Your task to perform on an android device: Go to calendar. Show me events next week Image 0: 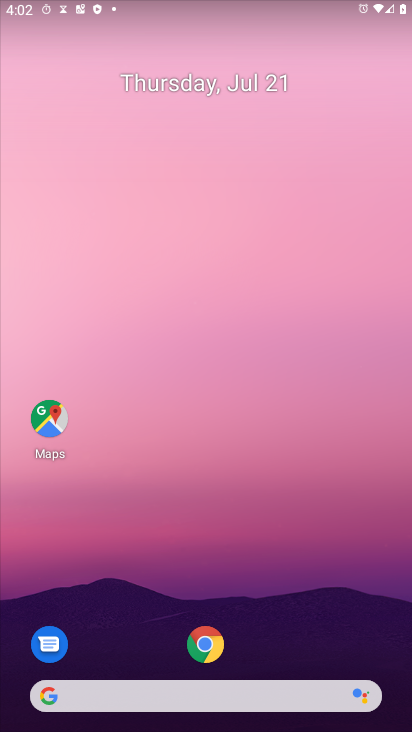
Step 0: drag from (293, 583) to (279, 0)
Your task to perform on an android device: Go to calendar. Show me events next week Image 1: 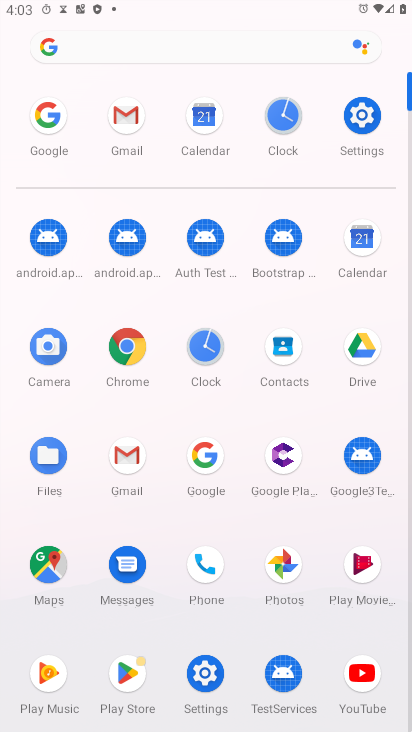
Step 1: click (368, 232)
Your task to perform on an android device: Go to calendar. Show me events next week Image 2: 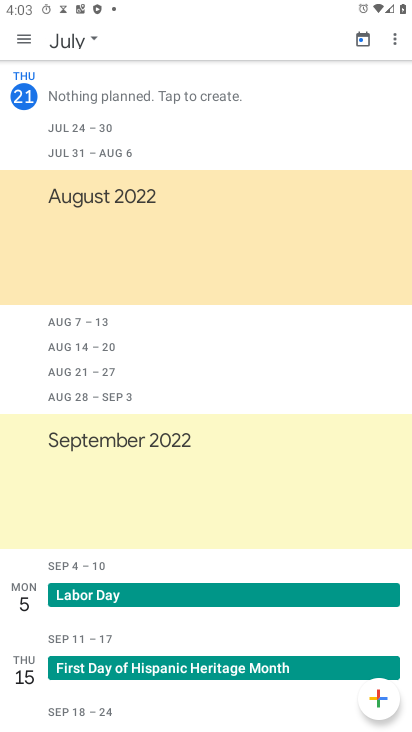
Step 2: click (20, 41)
Your task to perform on an android device: Go to calendar. Show me events next week Image 3: 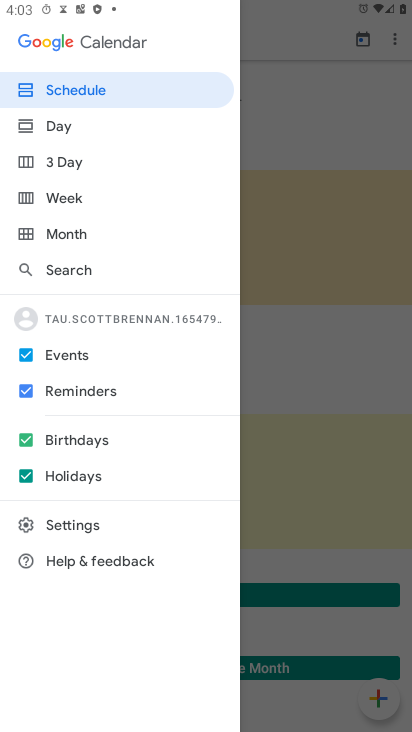
Step 3: click (53, 204)
Your task to perform on an android device: Go to calendar. Show me events next week Image 4: 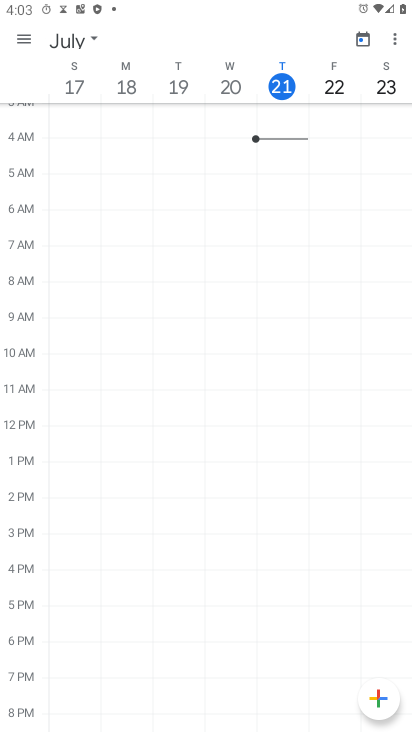
Step 4: task complete